Your task to perform on an android device: turn off notifications settings in the gmail app Image 0: 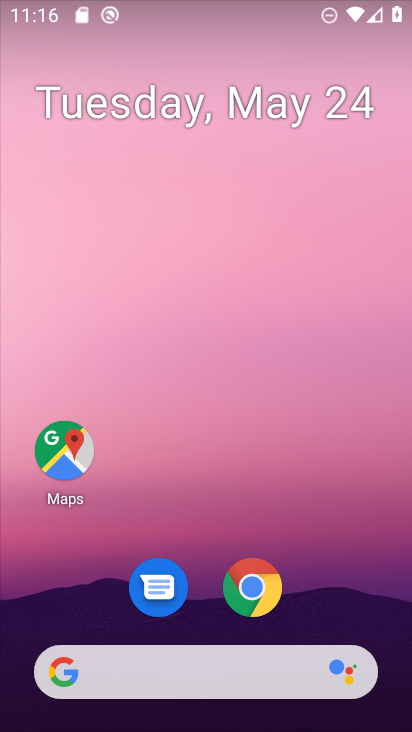
Step 0: press home button
Your task to perform on an android device: turn off notifications settings in the gmail app Image 1: 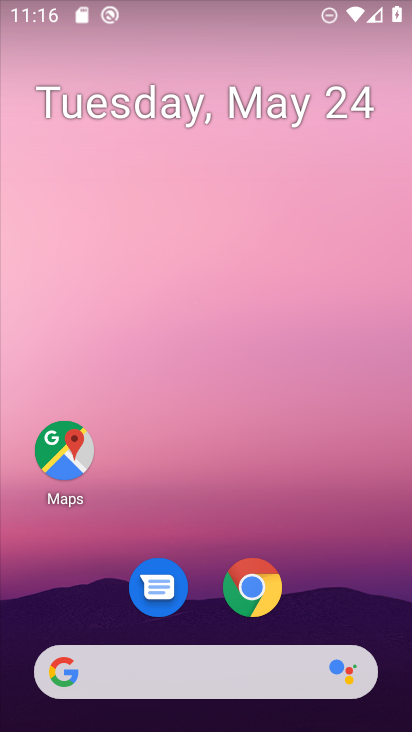
Step 1: press home button
Your task to perform on an android device: turn off notifications settings in the gmail app Image 2: 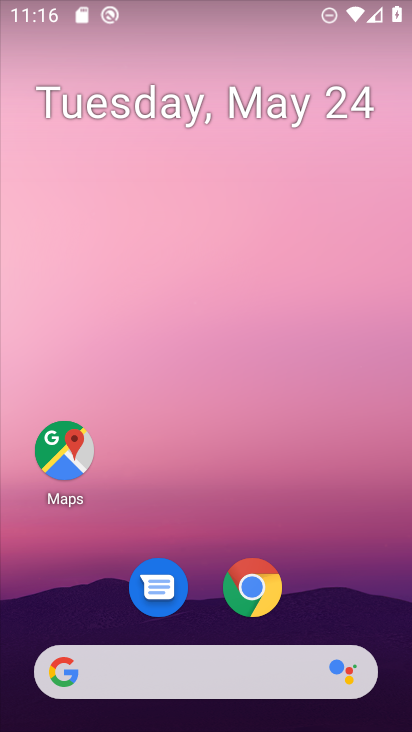
Step 2: press home button
Your task to perform on an android device: turn off notifications settings in the gmail app Image 3: 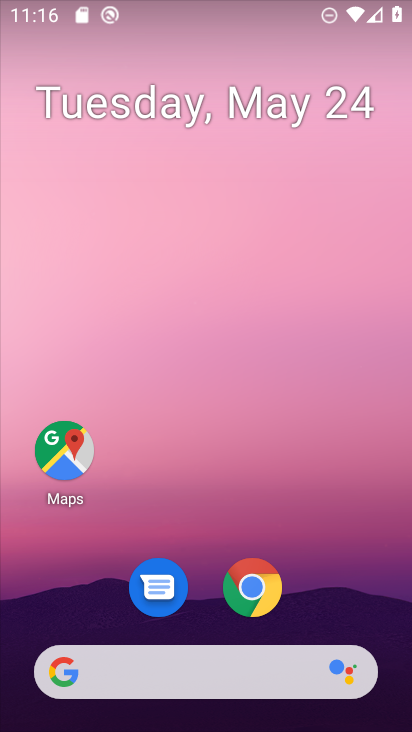
Step 3: drag from (364, 600) to (324, 298)
Your task to perform on an android device: turn off notifications settings in the gmail app Image 4: 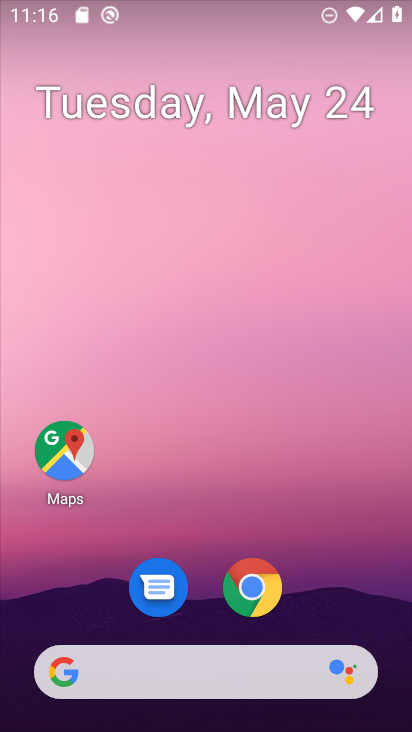
Step 4: drag from (403, 608) to (253, 17)
Your task to perform on an android device: turn off notifications settings in the gmail app Image 5: 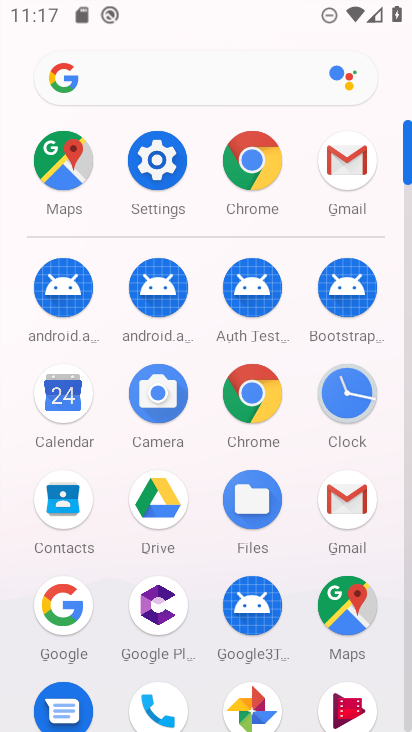
Step 5: click (324, 186)
Your task to perform on an android device: turn off notifications settings in the gmail app Image 6: 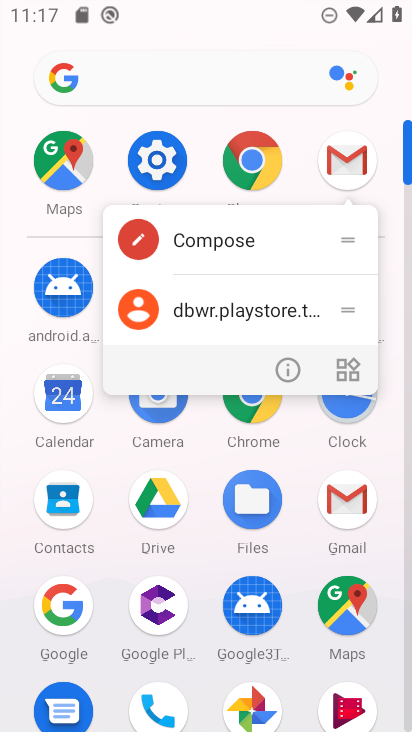
Step 6: click (291, 363)
Your task to perform on an android device: turn off notifications settings in the gmail app Image 7: 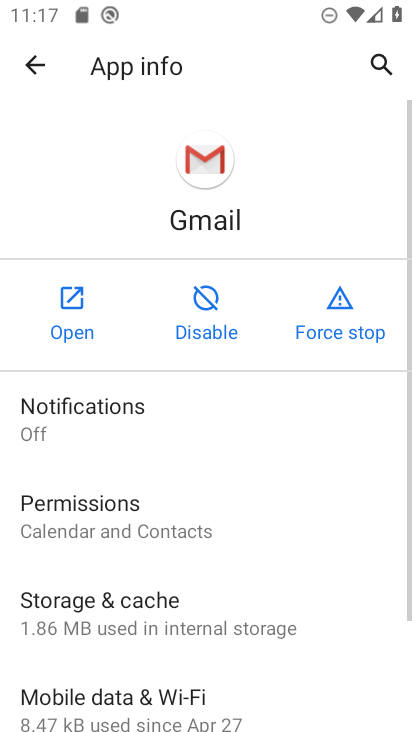
Step 7: click (55, 420)
Your task to perform on an android device: turn off notifications settings in the gmail app Image 8: 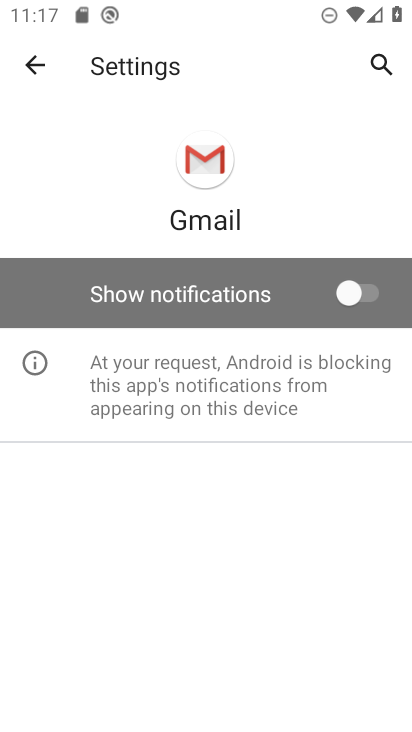
Step 8: task complete